Your task to perform on an android device: Open calendar and show me the second week of next month Image 0: 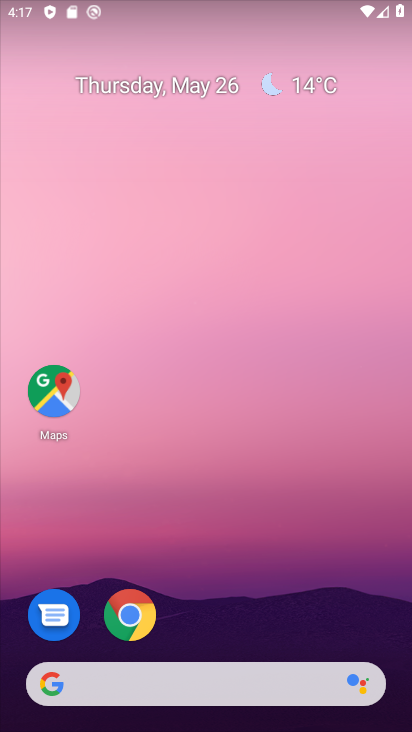
Step 0: drag from (296, 554) to (271, 234)
Your task to perform on an android device: Open calendar and show me the second week of next month Image 1: 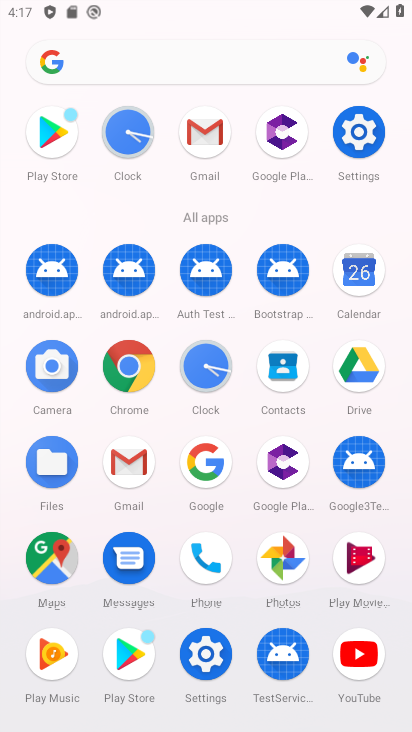
Step 1: click (357, 262)
Your task to perform on an android device: Open calendar and show me the second week of next month Image 2: 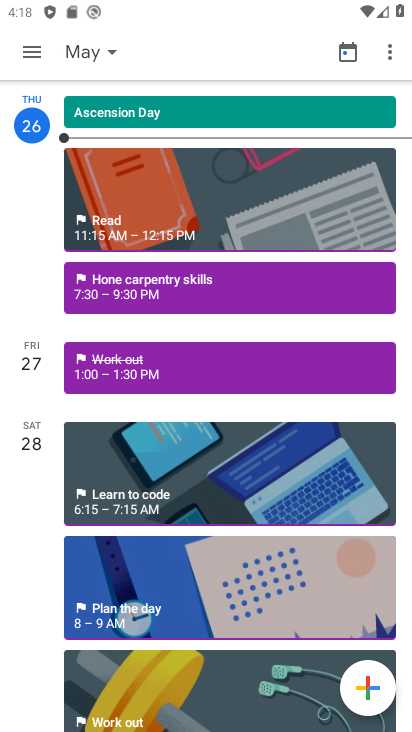
Step 2: click (91, 48)
Your task to perform on an android device: Open calendar and show me the second week of next month Image 3: 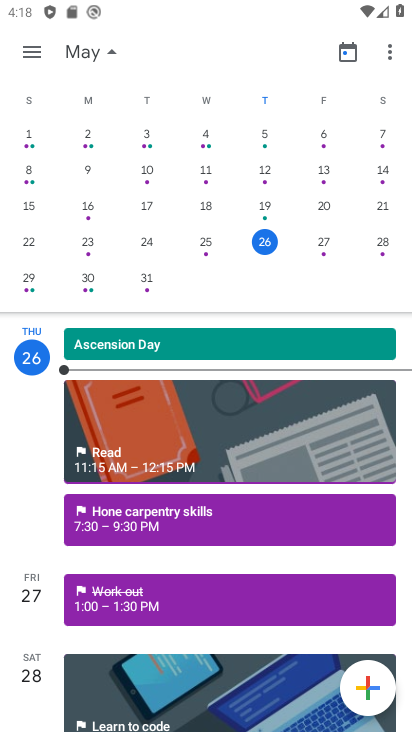
Step 3: drag from (370, 230) to (45, 208)
Your task to perform on an android device: Open calendar and show me the second week of next month Image 4: 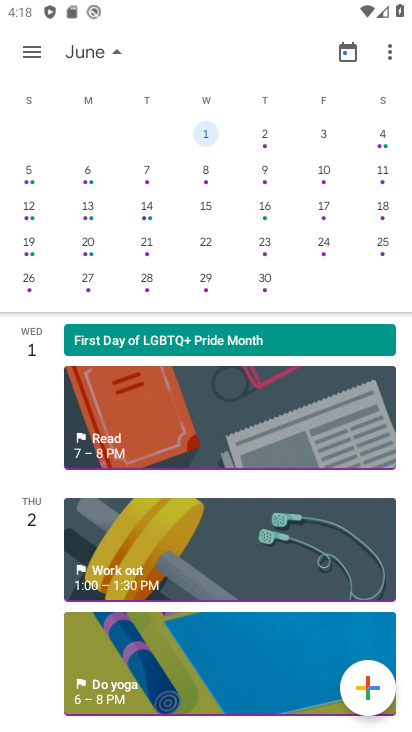
Step 4: click (37, 214)
Your task to perform on an android device: Open calendar and show me the second week of next month Image 5: 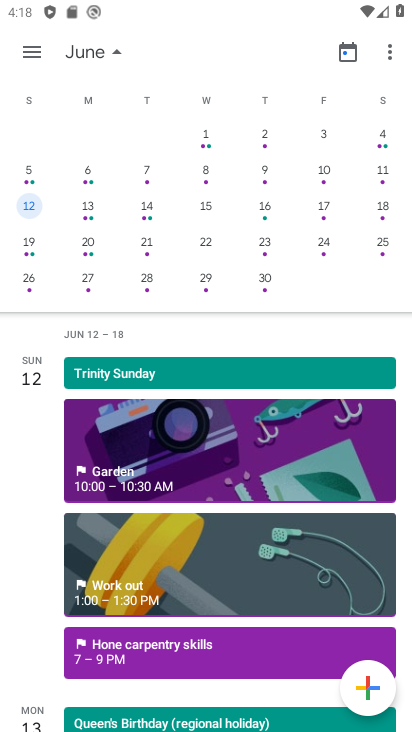
Step 5: click (38, 51)
Your task to perform on an android device: Open calendar and show me the second week of next month Image 6: 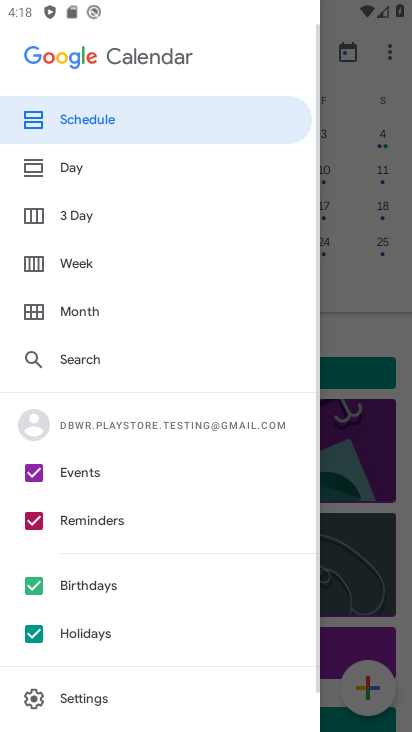
Step 6: click (81, 251)
Your task to perform on an android device: Open calendar and show me the second week of next month Image 7: 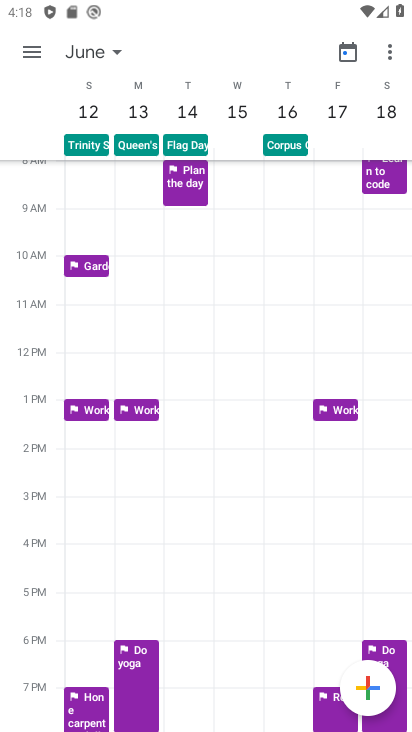
Step 7: task complete